Your task to perform on an android device: check android version Image 0: 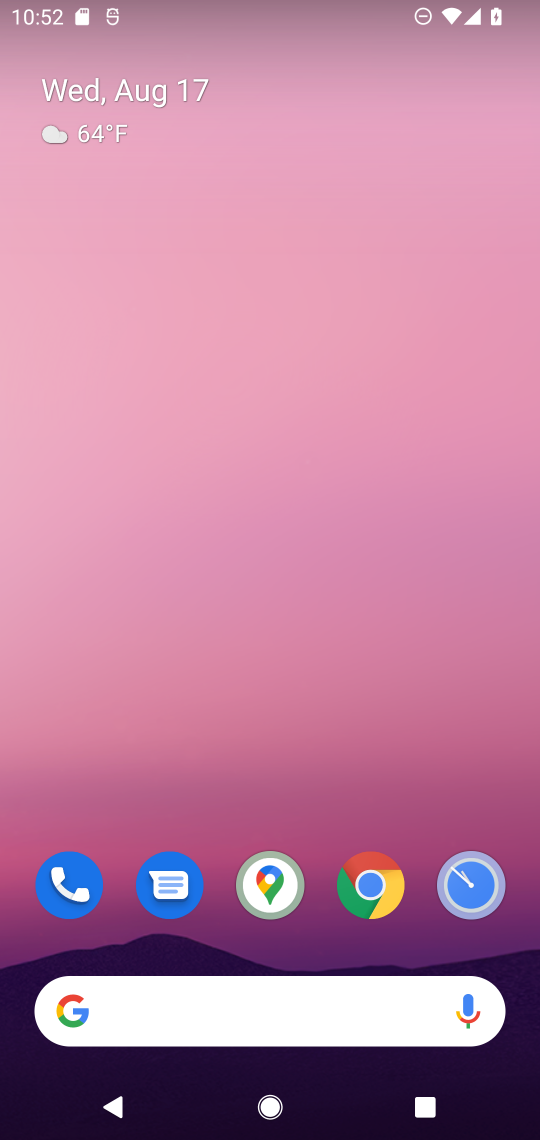
Step 0: drag from (428, 942) to (361, 50)
Your task to perform on an android device: check android version Image 1: 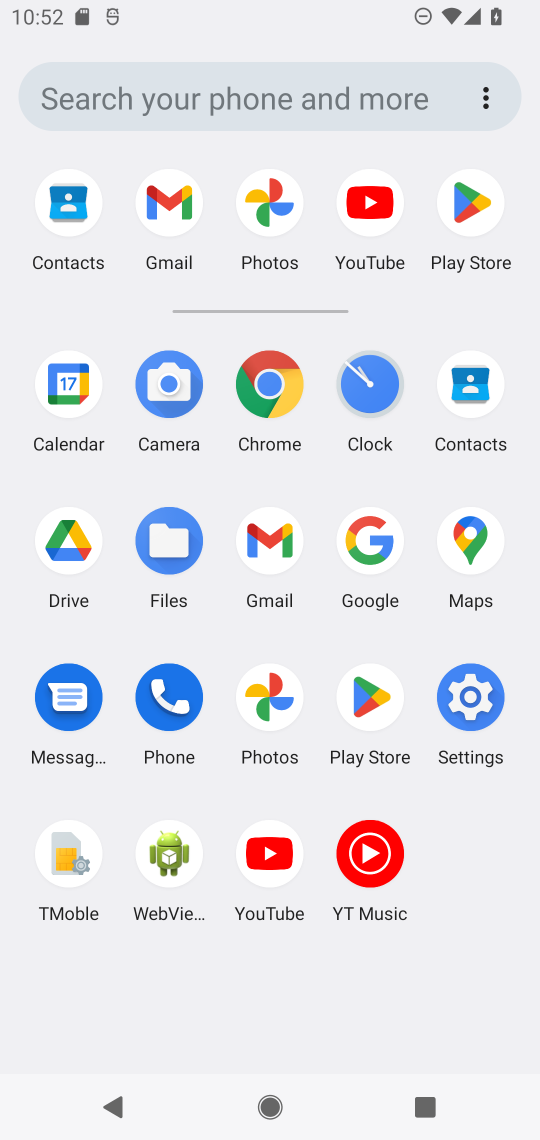
Step 1: click (470, 699)
Your task to perform on an android device: check android version Image 2: 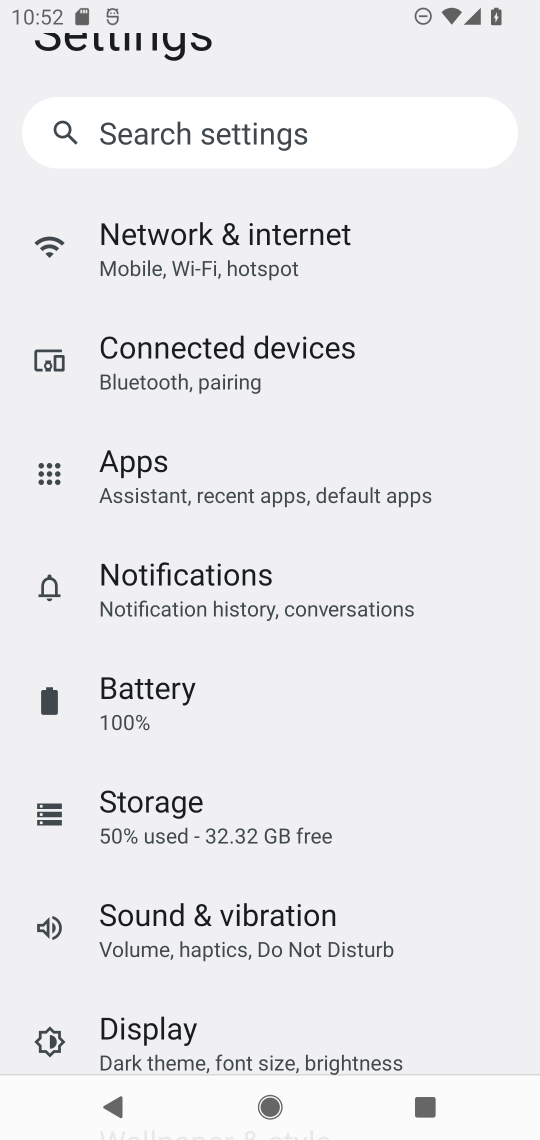
Step 2: drag from (442, 1017) to (375, 267)
Your task to perform on an android device: check android version Image 3: 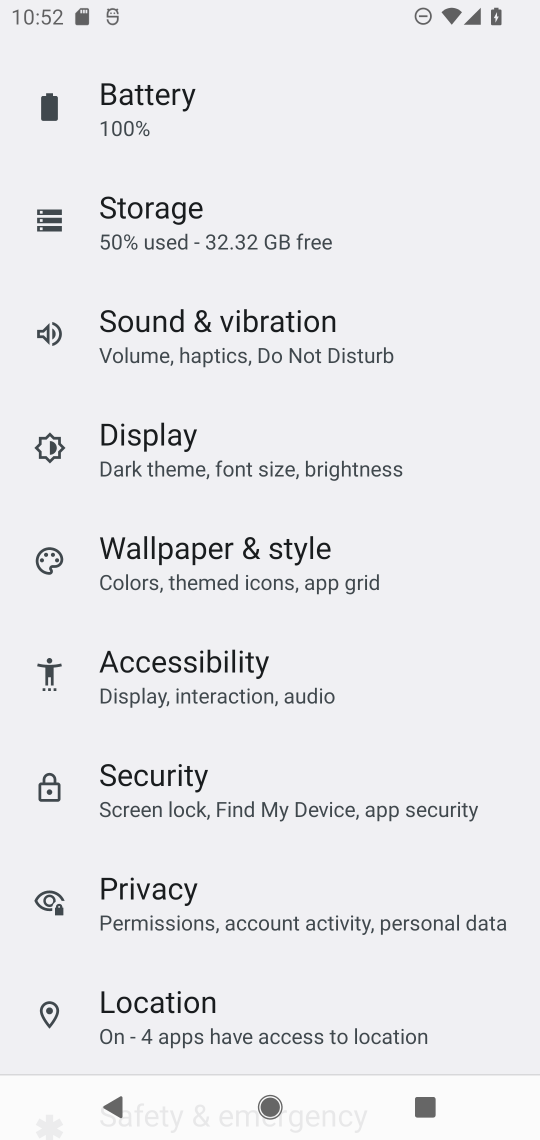
Step 3: drag from (394, 1042) to (398, 217)
Your task to perform on an android device: check android version Image 4: 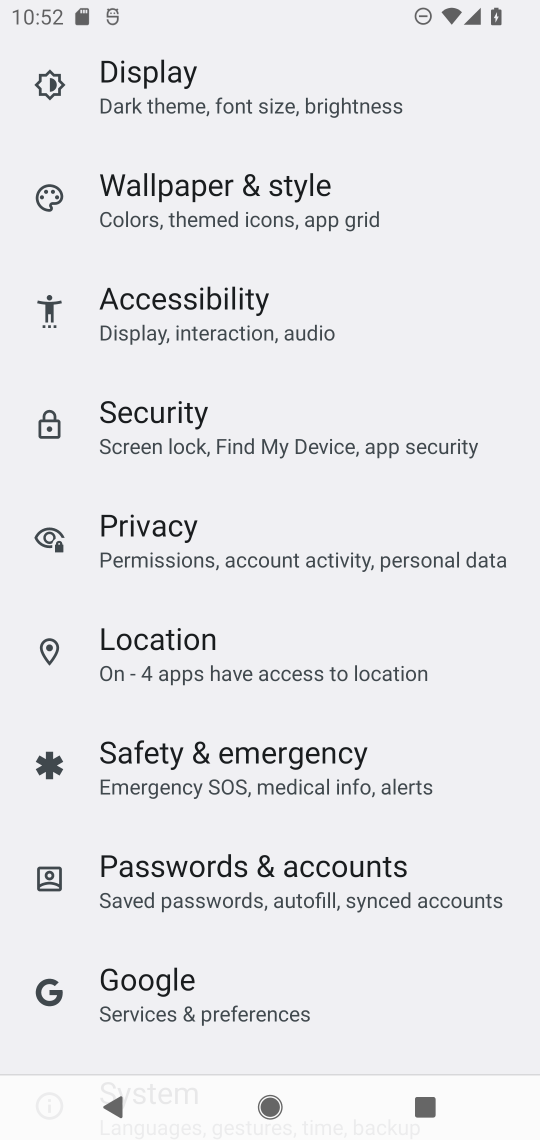
Step 4: drag from (419, 1010) to (414, 301)
Your task to perform on an android device: check android version Image 5: 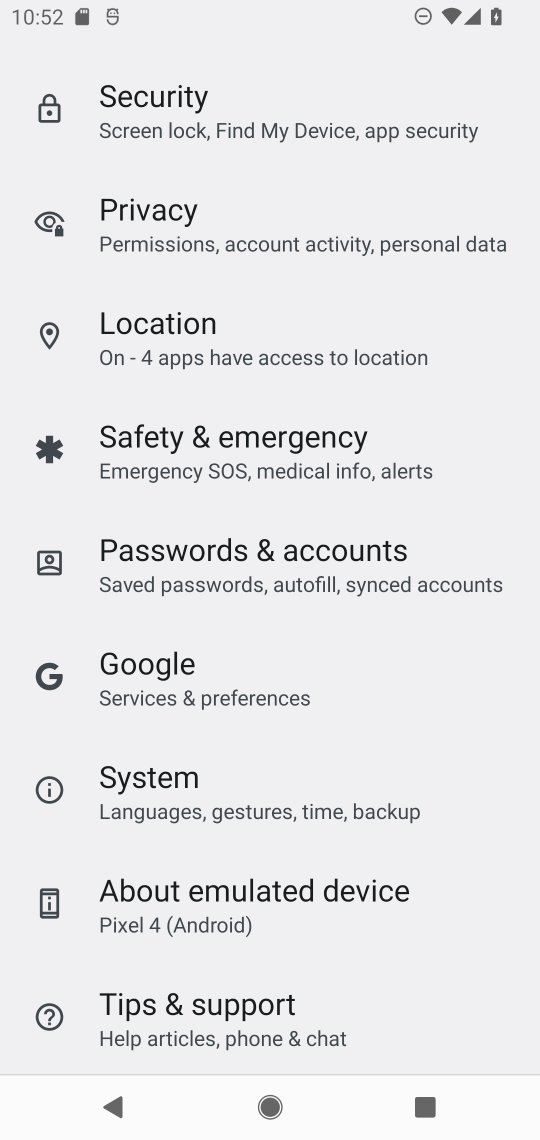
Step 5: click (179, 904)
Your task to perform on an android device: check android version Image 6: 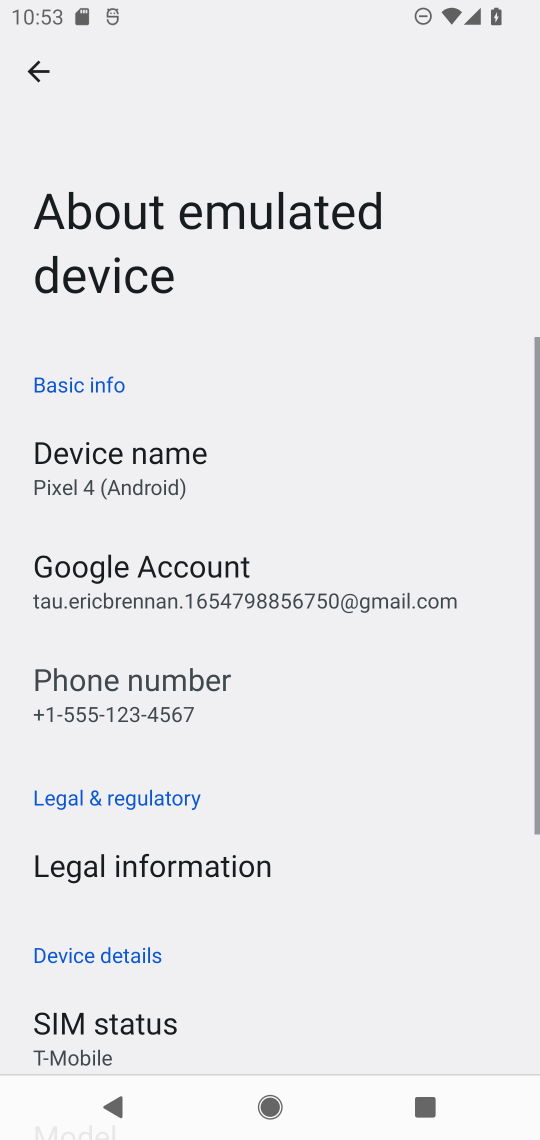
Step 6: drag from (326, 934) to (340, 312)
Your task to perform on an android device: check android version Image 7: 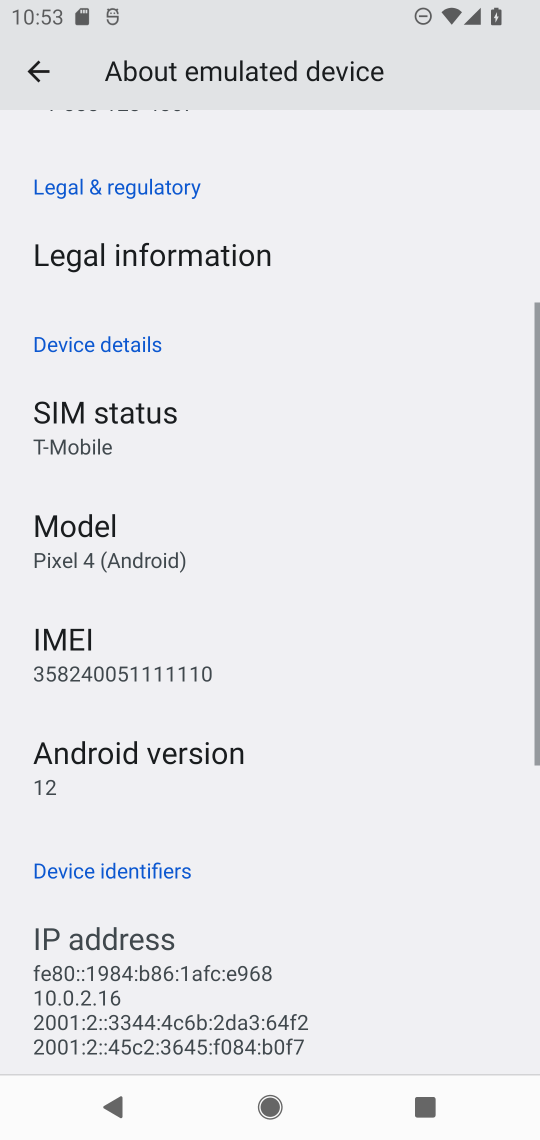
Step 7: click (94, 757)
Your task to perform on an android device: check android version Image 8: 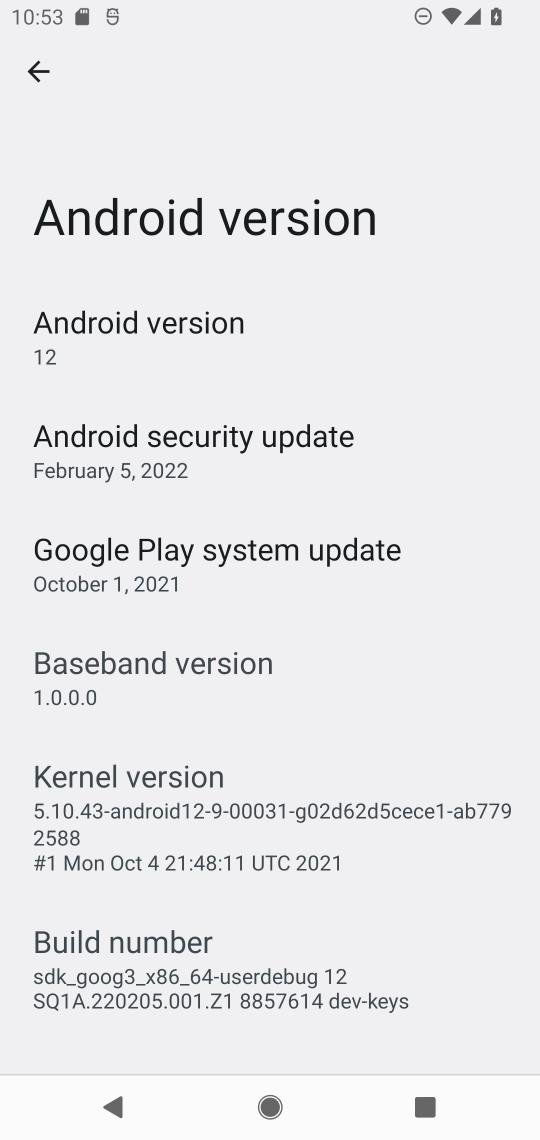
Step 8: click (86, 324)
Your task to perform on an android device: check android version Image 9: 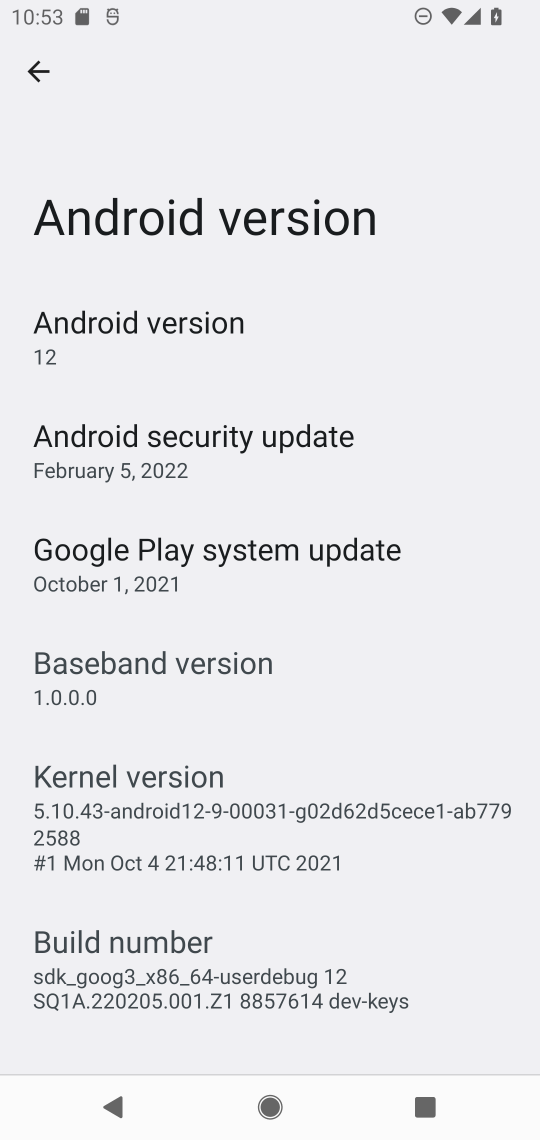
Step 9: task complete